Your task to perform on an android device: turn pop-ups off in chrome Image 0: 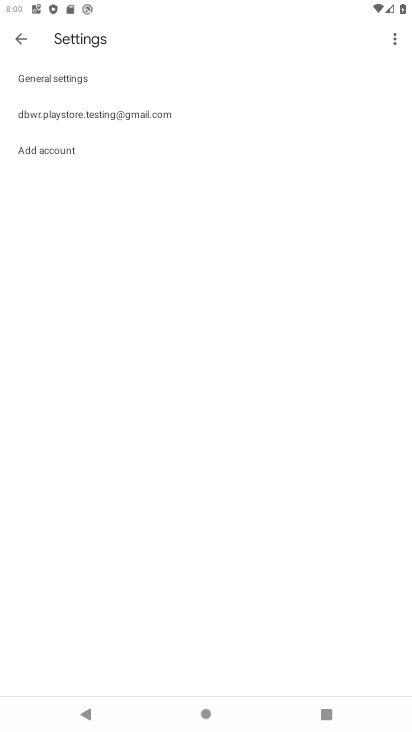
Step 0: press home button
Your task to perform on an android device: turn pop-ups off in chrome Image 1: 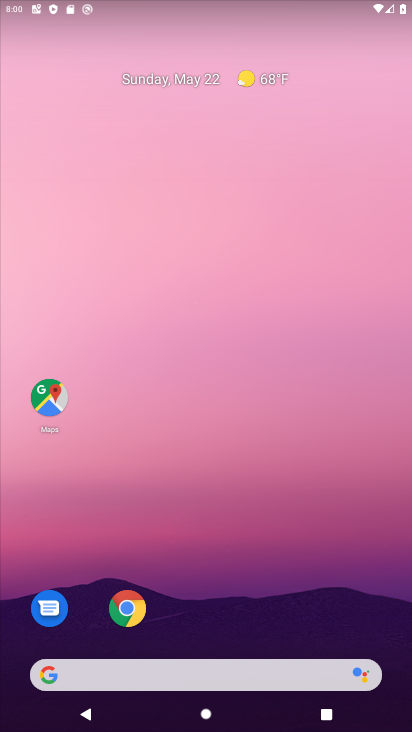
Step 1: click (128, 611)
Your task to perform on an android device: turn pop-ups off in chrome Image 2: 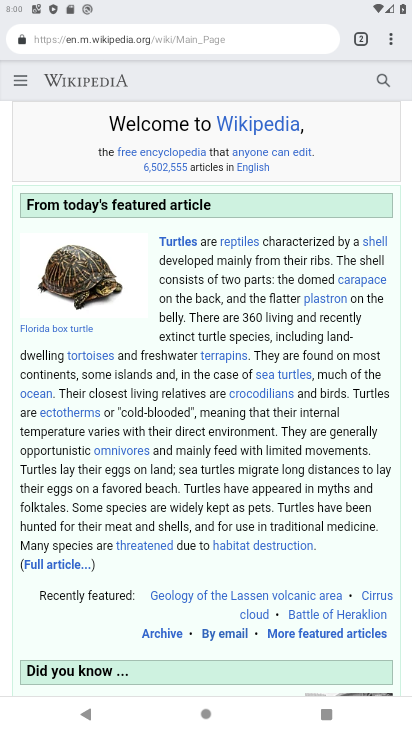
Step 2: click (392, 39)
Your task to perform on an android device: turn pop-ups off in chrome Image 3: 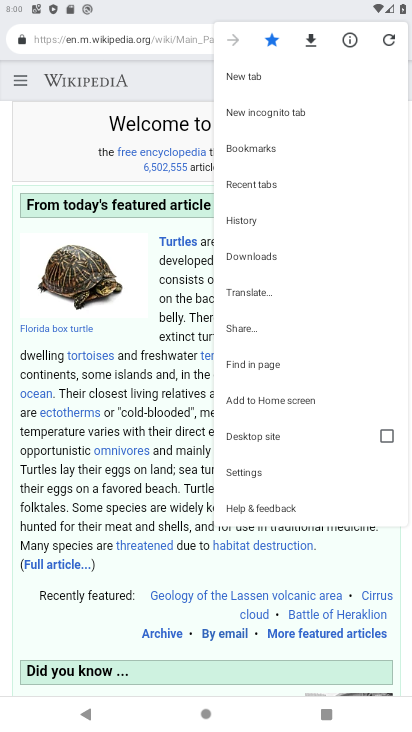
Step 3: click (247, 467)
Your task to perform on an android device: turn pop-ups off in chrome Image 4: 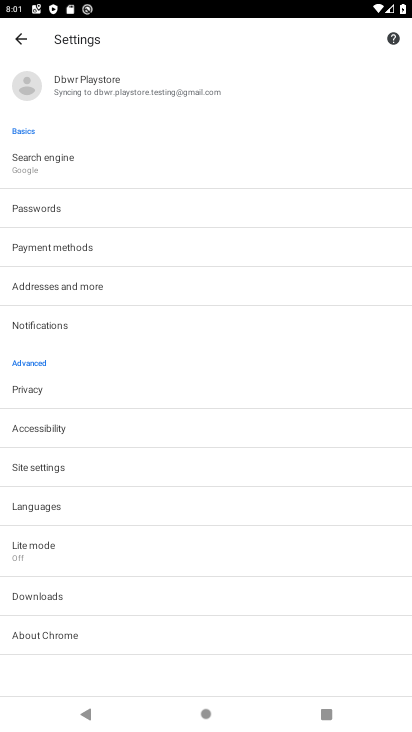
Step 4: click (40, 460)
Your task to perform on an android device: turn pop-ups off in chrome Image 5: 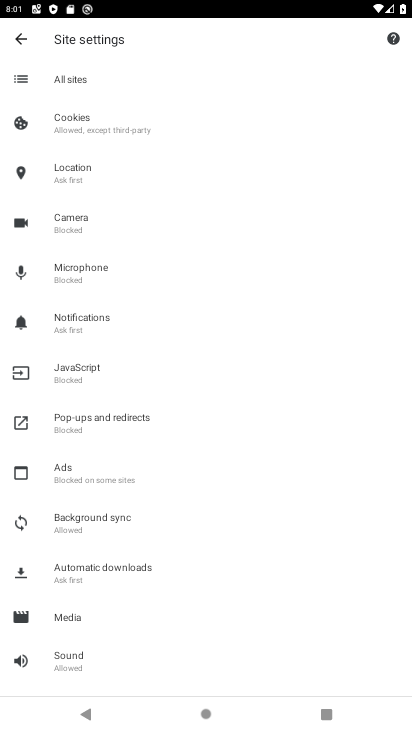
Step 5: click (90, 421)
Your task to perform on an android device: turn pop-ups off in chrome Image 6: 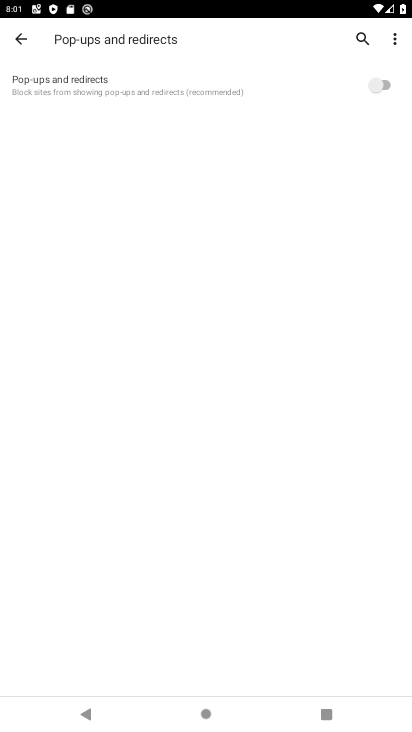
Step 6: task complete